Your task to perform on an android device: change timer sound Image 0: 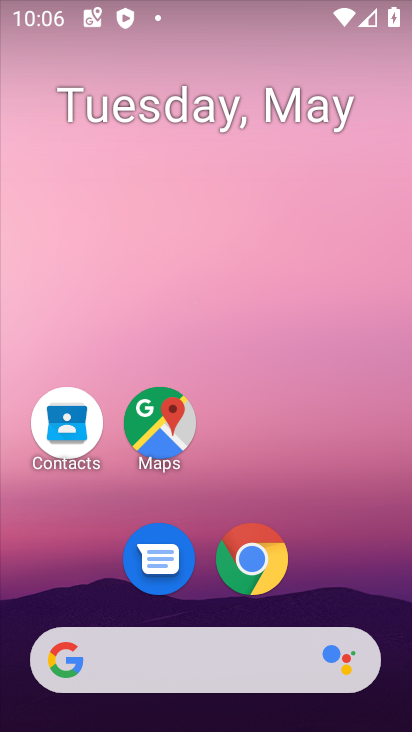
Step 0: drag from (379, 572) to (343, 167)
Your task to perform on an android device: change timer sound Image 1: 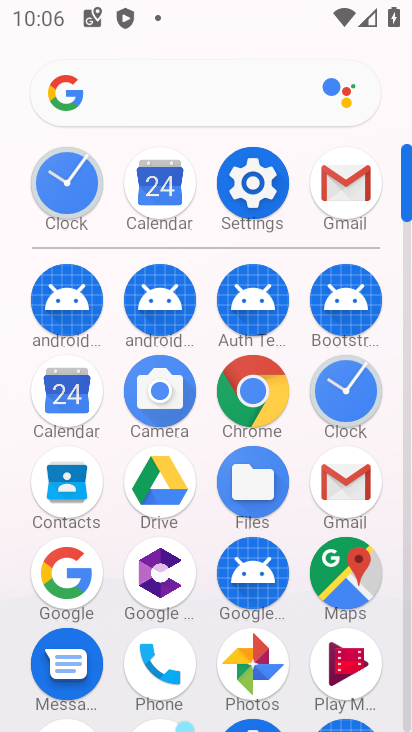
Step 1: click (405, 691)
Your task to perform on an android device: change timer sound Image 2: 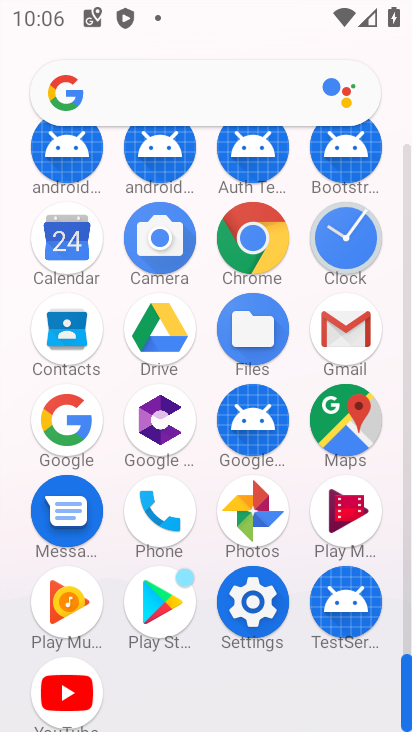
Step 2: click (405, 691)
Your task to perform on an android device: change timer sound Image 3: 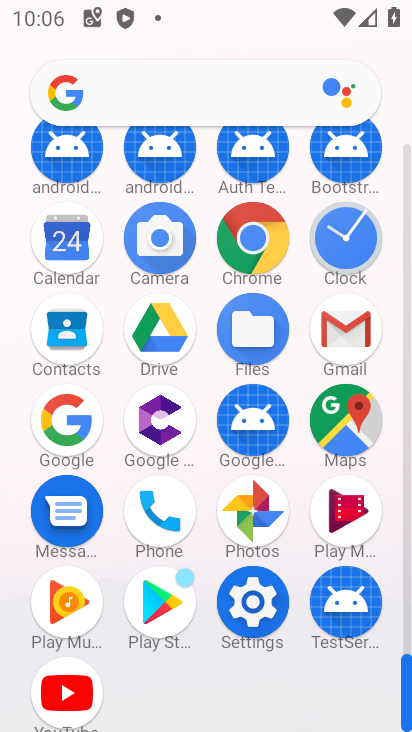
Step 3: click (253, 592)
Your task to perform on an android device: change timer sound Image 4: 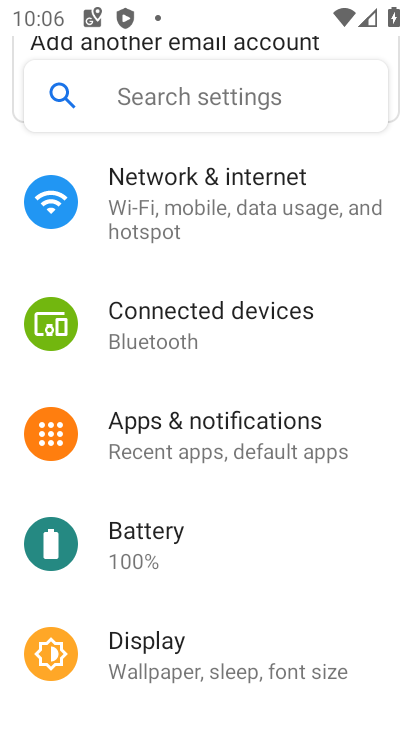
Step 4: drag from (278, 618) to (288, 470)
Your task to perform on an android device: change timer sound Image 5: 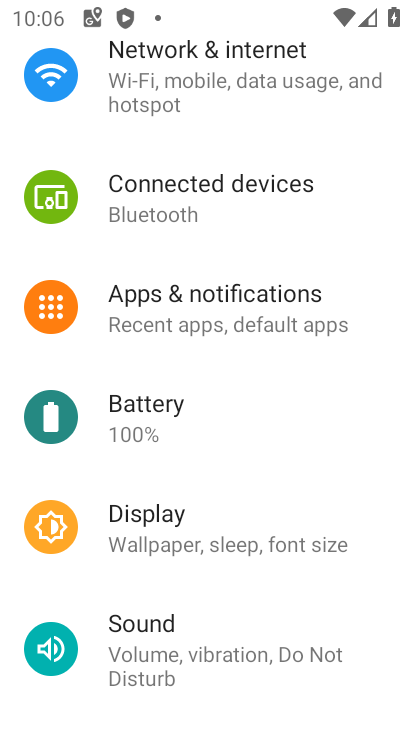
Step 5: click (252, 612)
Your task to perform on an android device: change timer sound Image 6: 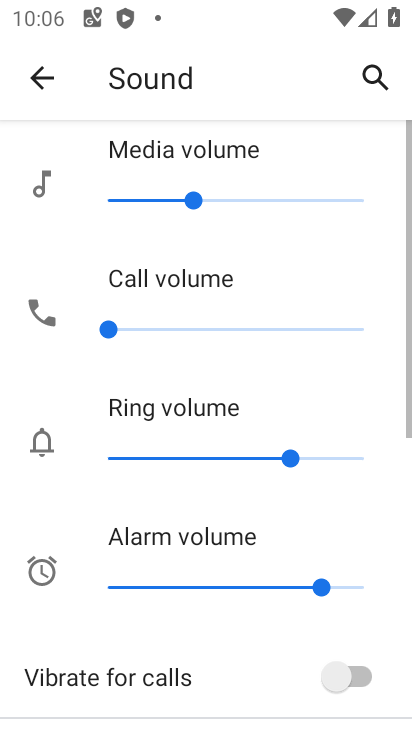
Step 6: task complete